Your task to perform on an android device: choose inbox layout in the gmail app Image 0: 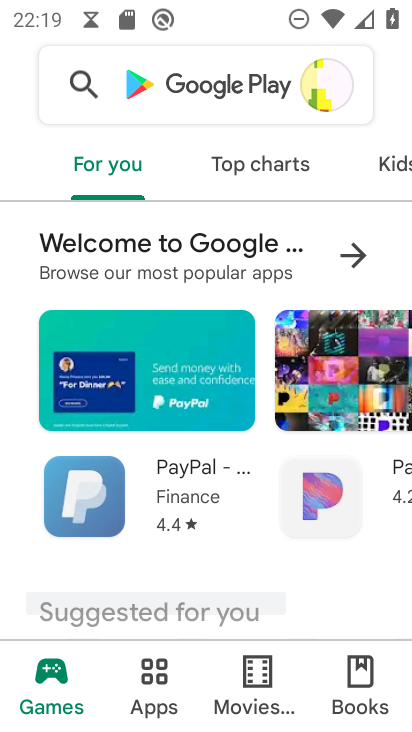
Step 0: press home button
Your task to perform on an android device: choose inbox layout in the gmail app Image 1: 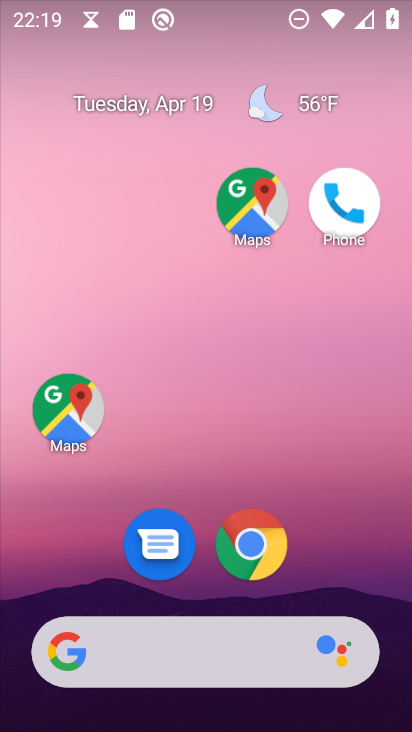
Step 1: drag from (207, 640) to (348, 81)
Your task to perform on an android device: choose inbox layout in the gmail app Image 2: 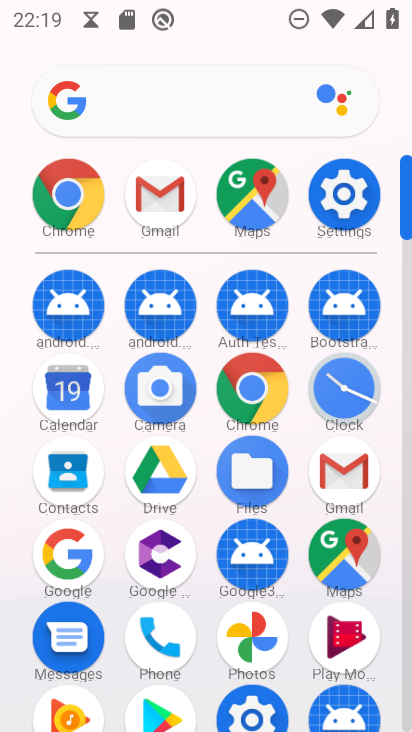
Step 2: click (165, 199)
Your task to perform on an android device: choose inbox layout in the gmail app Image 3: 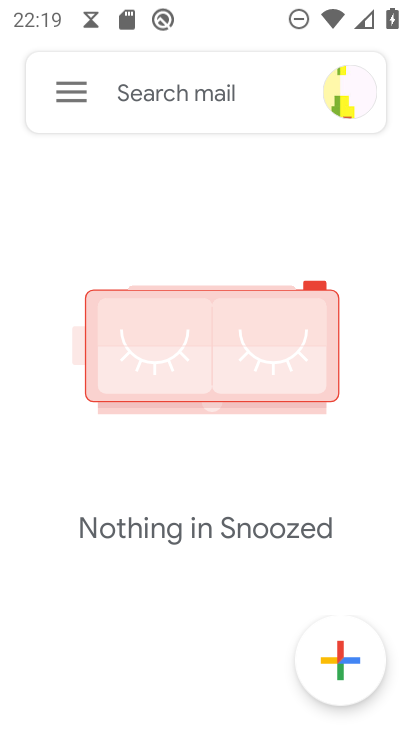
Step 3: click (78, 92)
Your task to perform on an android device: choose inbox layout in the gmail app Image 4: 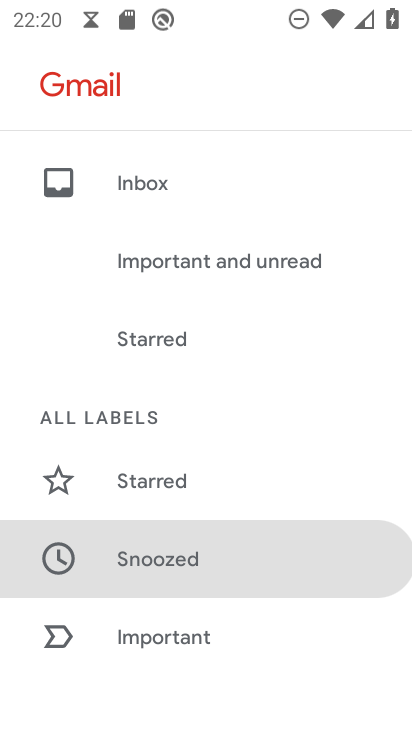
Step 4: drag from (193, 655) to (327, 143)
Your task to perform on an android device: choose inbox layout in the gmail app Image 5: 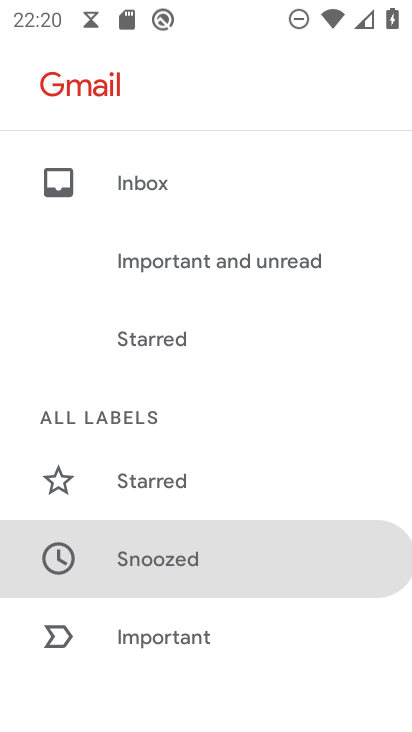
Step 5: drag from (151, 625) to (344, 144)
Your task to perform on an android device: choose inbox layout in the gmail app Image 6: 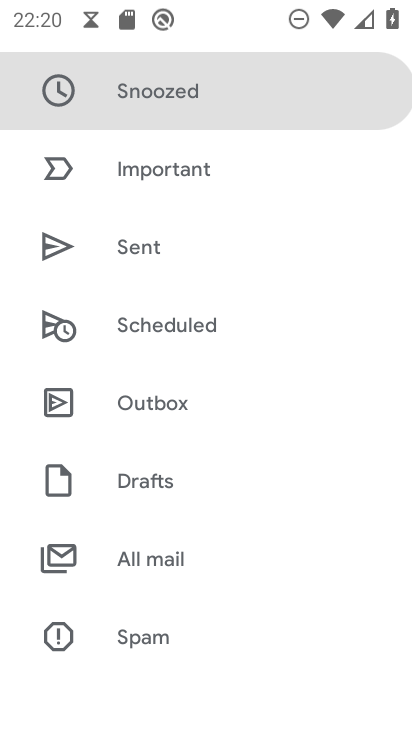
Step 6: drag from (166, 623) to (356, 20)
Your task to perform on an android device: choose inbox layout in the gmail app Image 7: 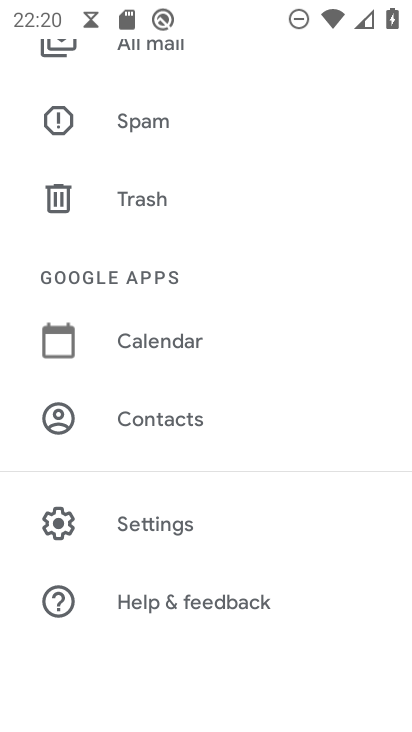
Step 7: click (147, 517)
Your task to perform on an android device: choose inbox layout in the gmail app Image 8: 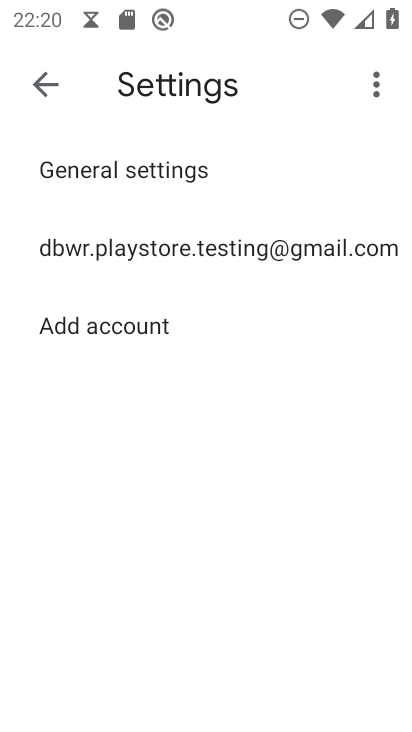
Step 8: click (246, 245)
Your task to perform on an android device: choose inbox layout in the gmail app Image 9: 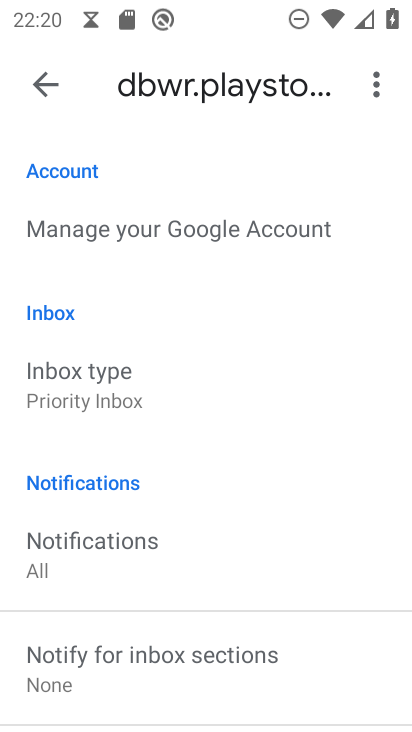
Step 9: click (69, 380)
Your task to perform on an android device: choose inbox layout in the gmail app Image 10: 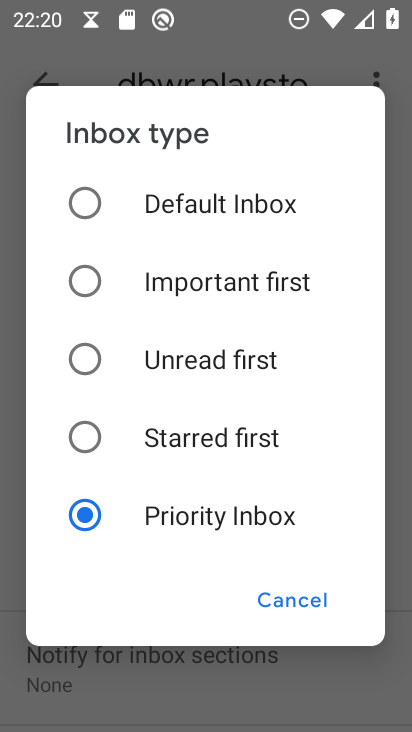
Step 10: click (89, 203)
Your task to perform on an android device: choose inbox layout in the gmail app Image 11: 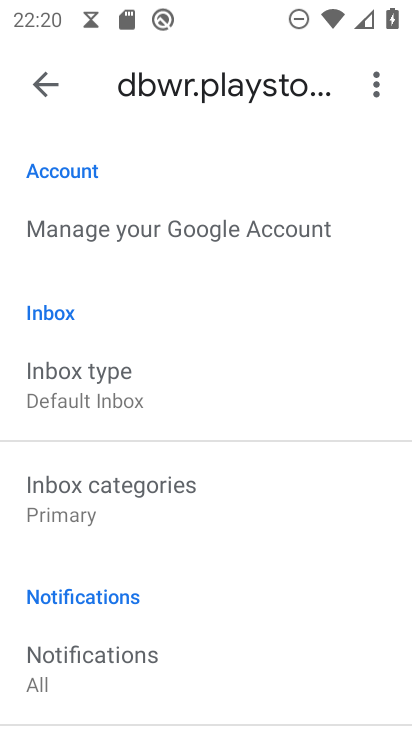
Step 11: task complete